Your task to perform on an android device: Go to Yahoo.com Image 0: 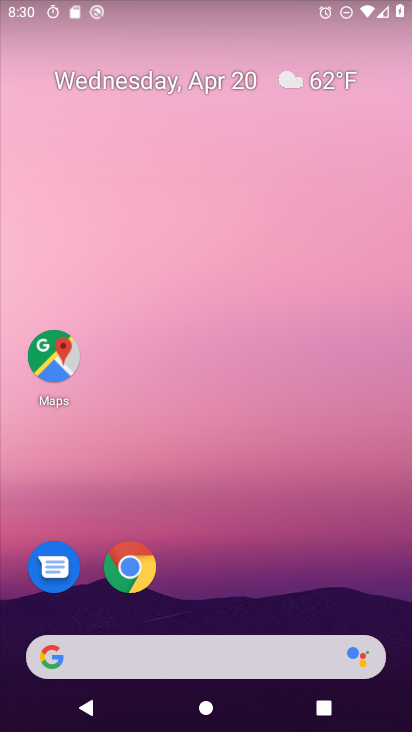
Step 0: click (136, 574)
Your task to perform on an android device: Go to Yahoo.com Image 1: 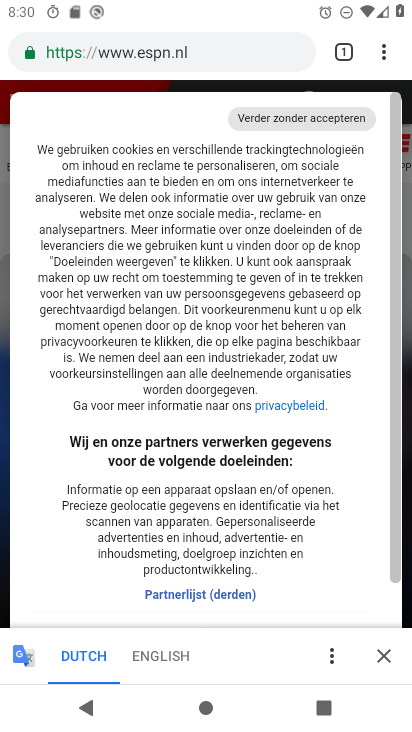
Step 1: click (190, 49)
Your task to perform on an android device: Go to Yahoo.com Image 2: 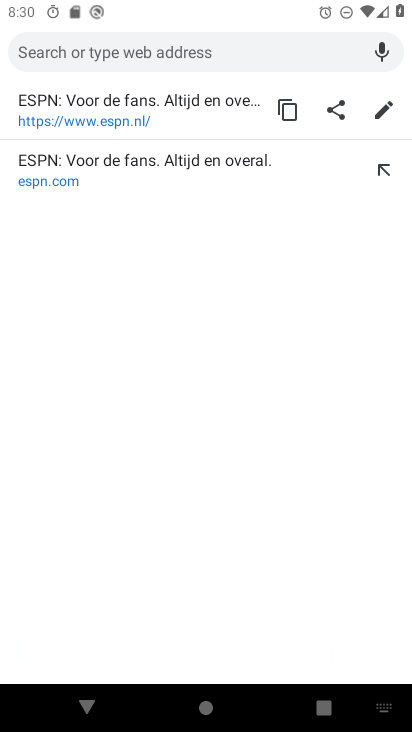
Step 2: type "yahoo.com"
Your task to perform on an android device: Go to Yahoo.com Image 3: 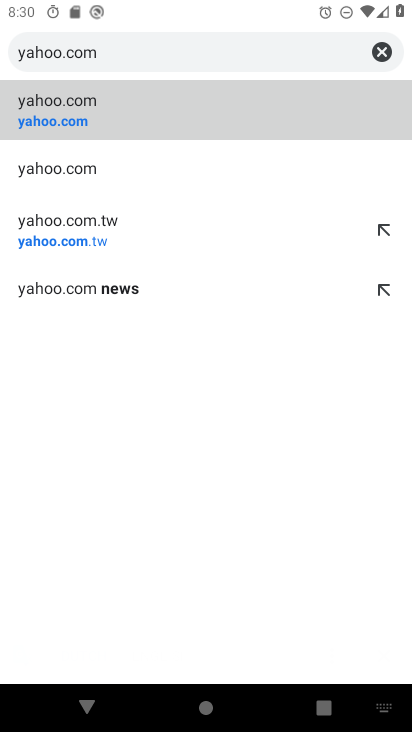
Step 3: click (57, 127)
Your task to perform on an android device: Go to Yahoo.com Image 4: 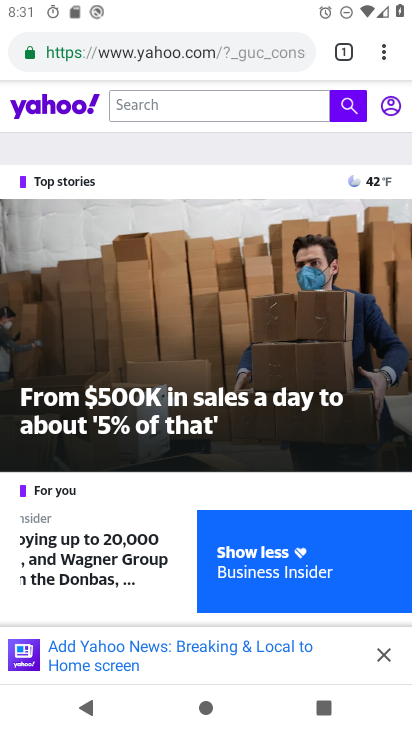
Step 4: task complete